Your task to perform on an android device: toggle wifi Image 0: 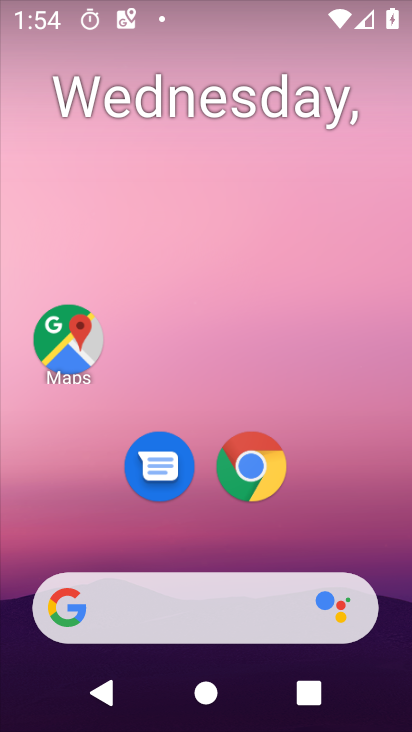
Step 0: drag from (310, 487) to (310, 127)
Your task to perform on an android device: toggle wifi Image 1: 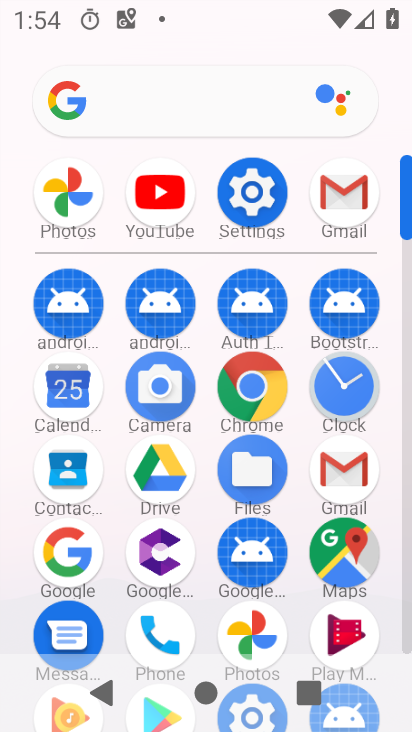
Step 1: click (246, 183)
Your task to perform on an android device: toggle wifi Image 2: 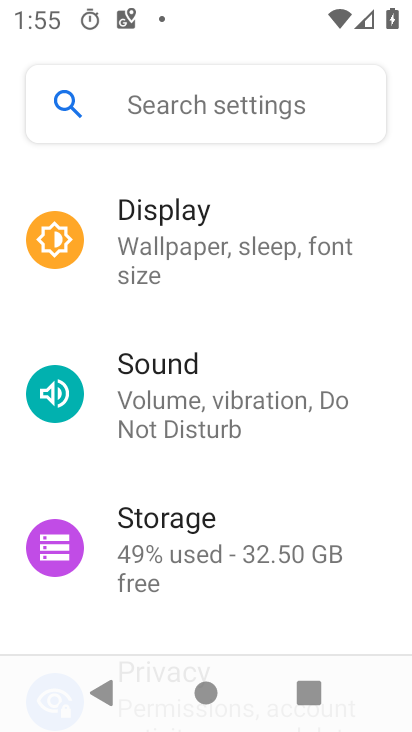
Step 2: drag from (200, 251) to (159, 416)
Your task to perform on an android device: toggle wifi Image 3: 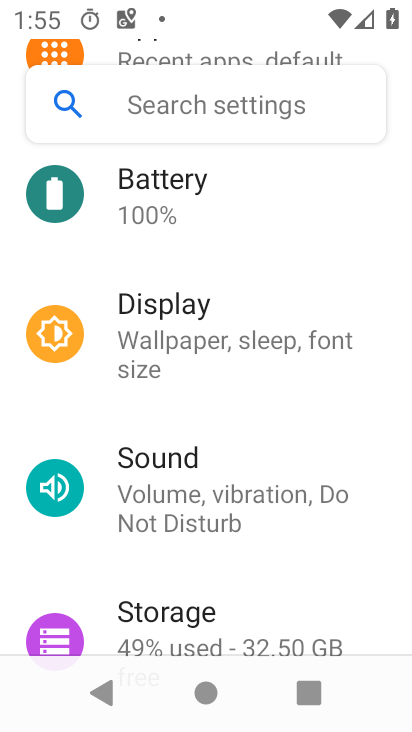
Step 3: drag from (213, 214) to (169, 615)
Your task to perform on an android device: toggle wifi Image 4: 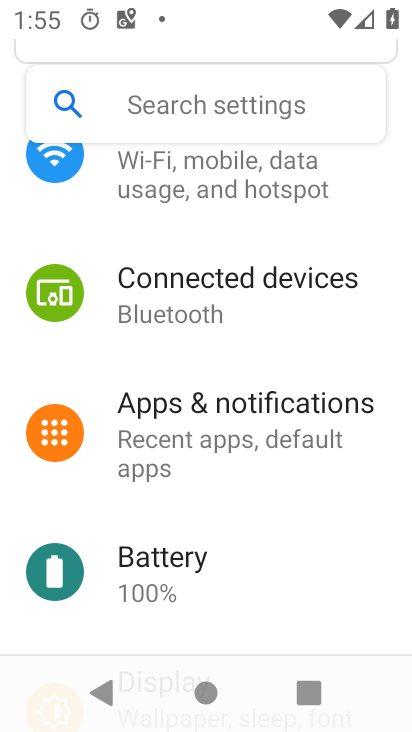
Step 4: drag from (225, 262) to (232, 527)
Your task to perform on an android device: toggle wifi Image 5: 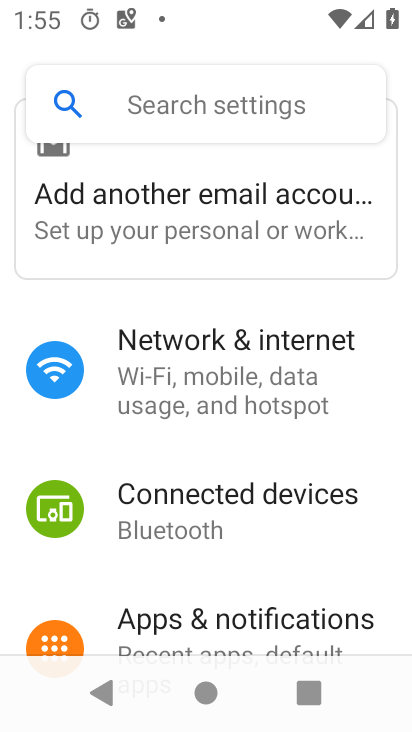
Step 5: click (265, 365)
Your task to perform on an android device: toggle wifi Image 6: 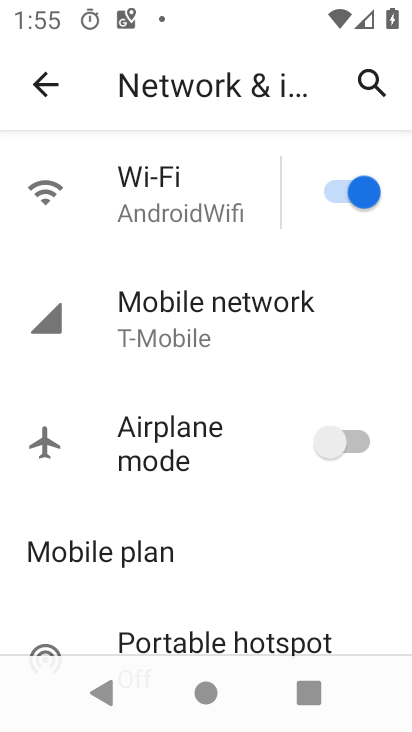
Step 6: click (374, 189)
Your task to perform on an android device: toggle wifi Image 7: 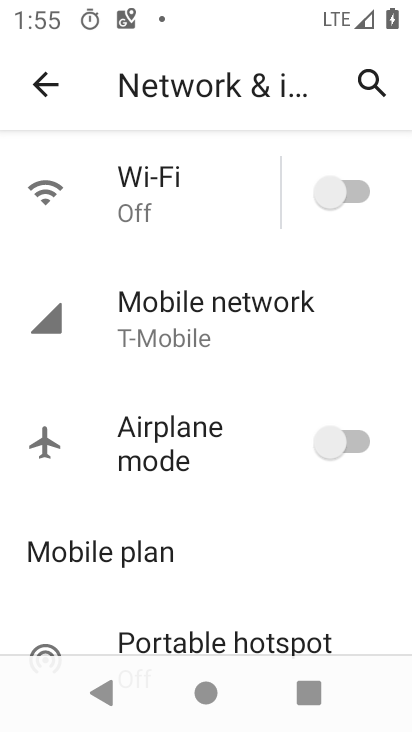
Step 7: task complete